Your task to perform on an android device: Go to Maps Image 0: 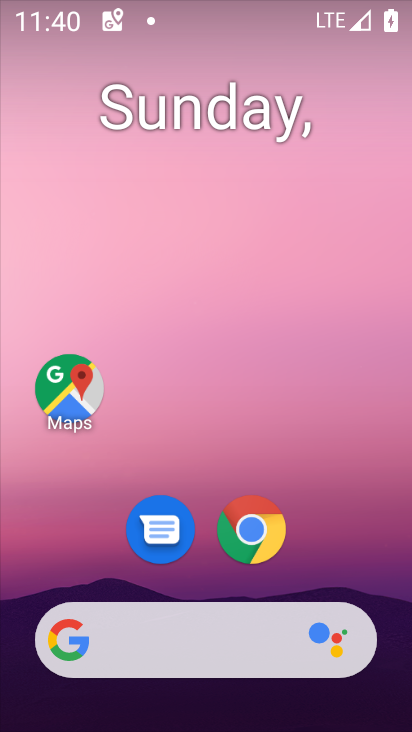
Step 0: click (66, 396)
Your task to perform on an android device: Go to Maps Image 1: 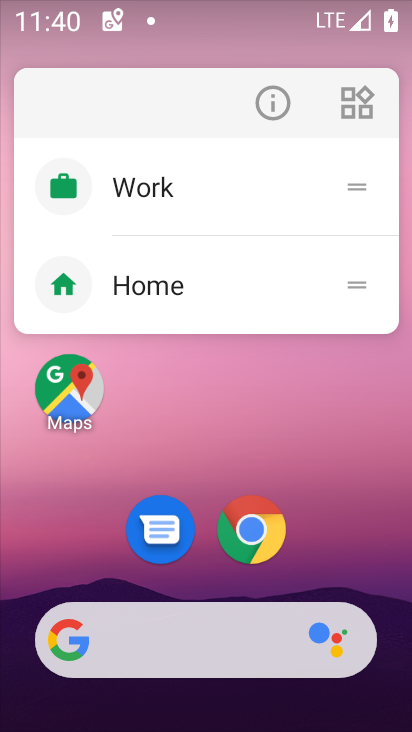
Step 1: click (65, 395)
Your task to perform on an android device: Go to Maps Image 2: 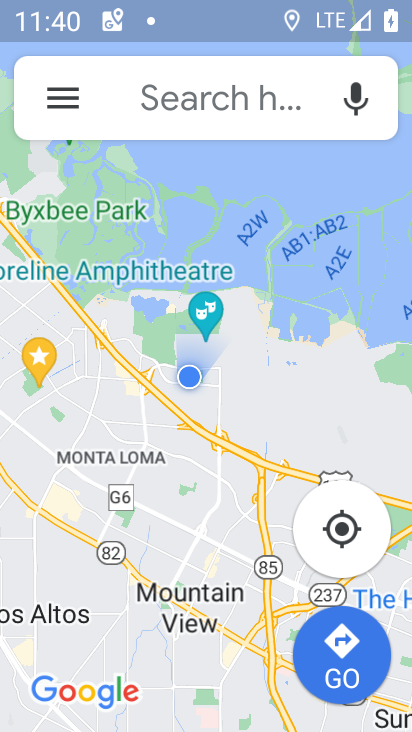
Step 2: task complete